Your task to perform on an android device: change notification settings in the gmail app Image 0: 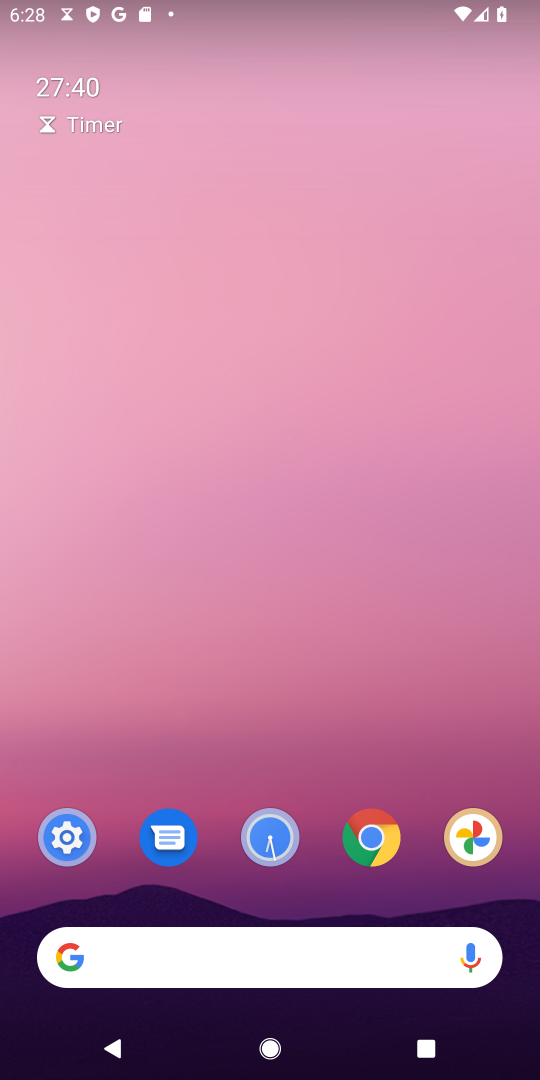
Step 0: press home button
Your task to perform on an android device: change notification settings in the gmail app Image 1: 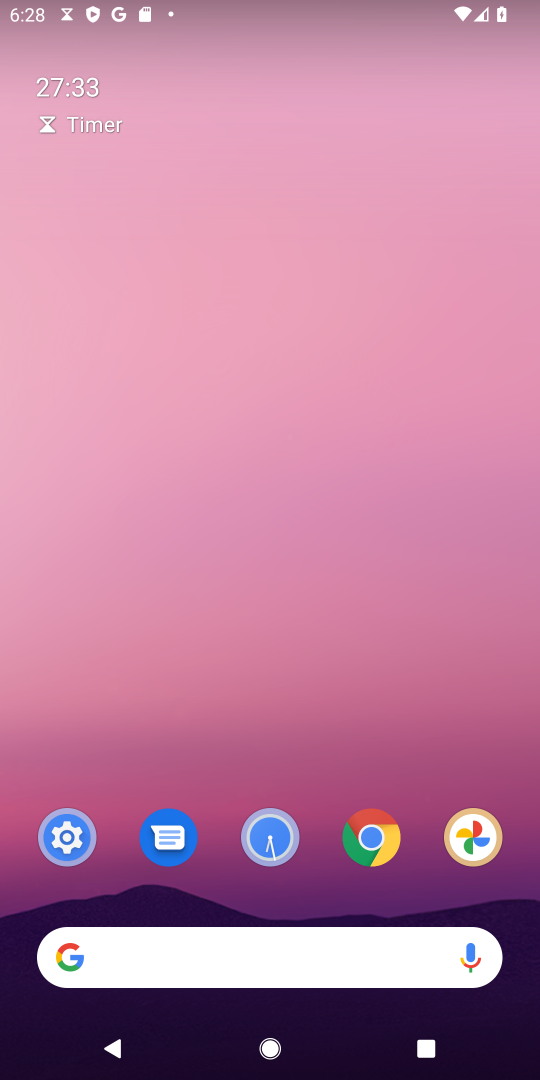
Step 1: drag from (313, 778) to (364, 93)
Your task to perform on an android device: change notification settings in the gmail app Image 2: 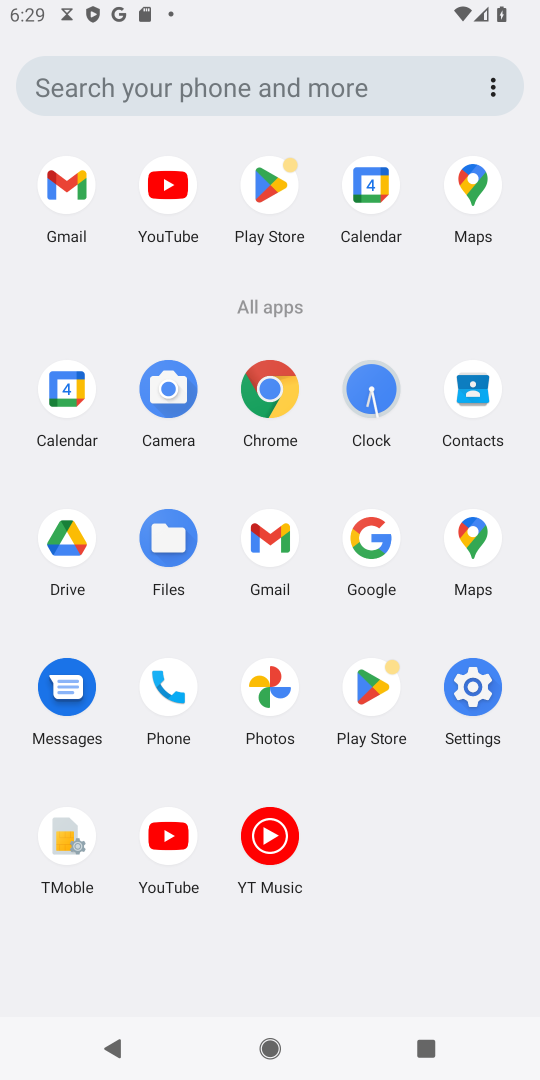
Step 2: click (269, 527)
Your task to perform on an android device: change notification settings in the gmail app Image 3: 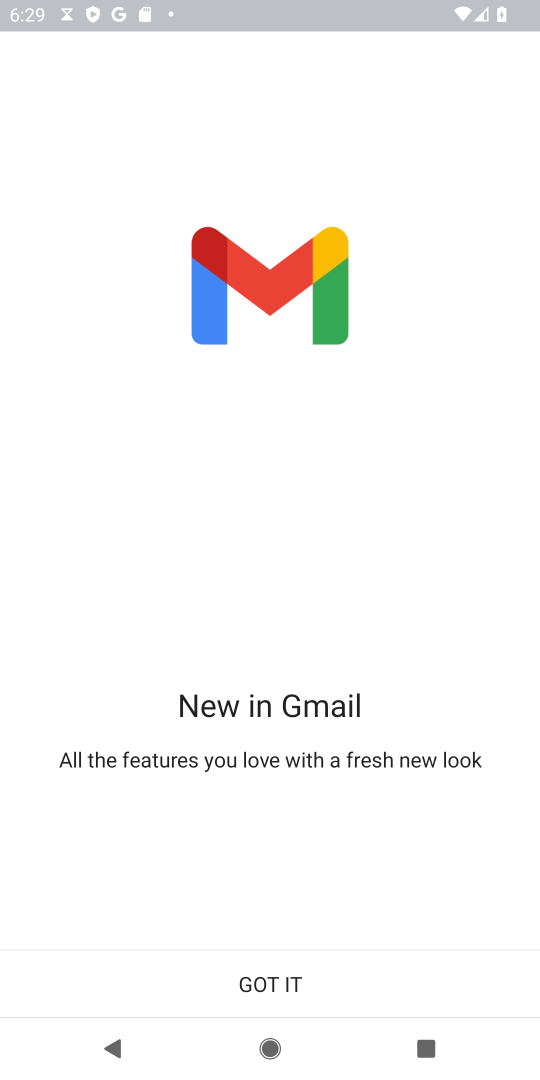
Step 3: click (263, 977)
Your task to perform on an android device: change notification settings in the gmail app Image 4: 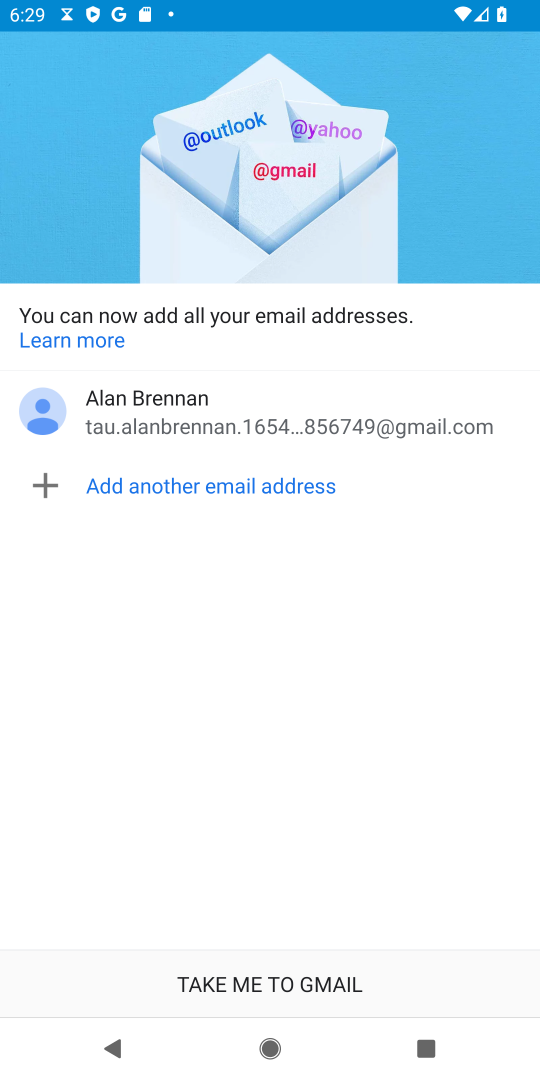
Step 4: click (262, 984)
Your task to perform on an android device: change notification settings in the gmail app Image 5: 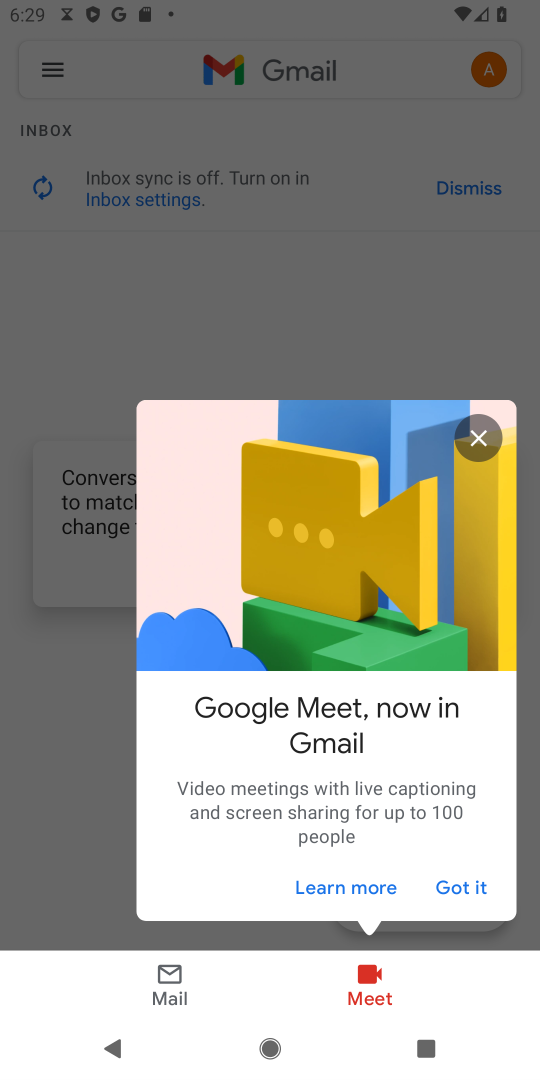
Step 5: click (457, 873)
Your task to perform on an android device: change notification settings in the gmail app Image 6: 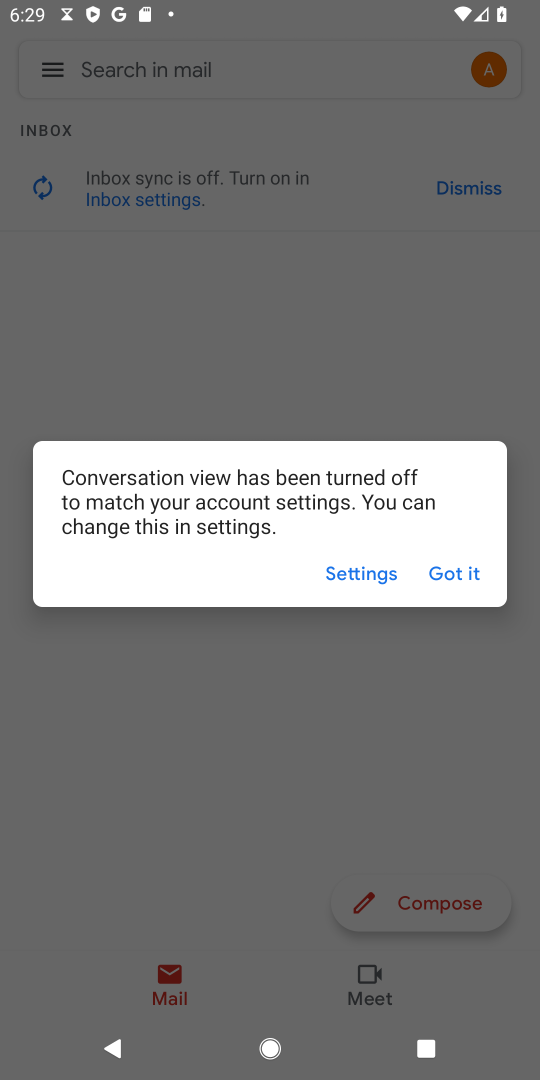
Step 6: click (448, 586)
Your task to perform on an android device: change notification settings in the gmail app Image 7: 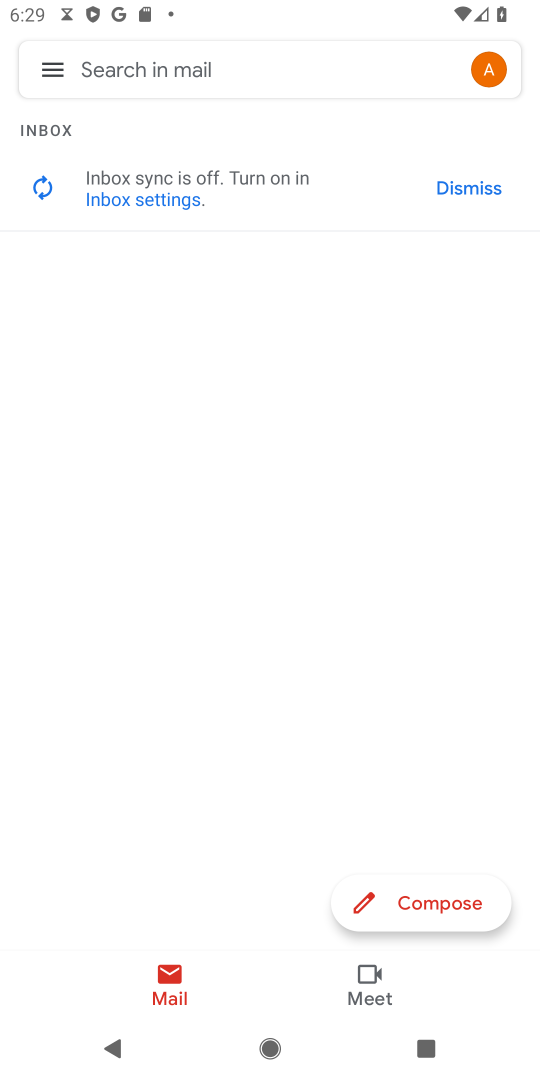
Step 7: click (44, 66)
Your task to perform on an android device: change notification settings in the gmail app Image 8: 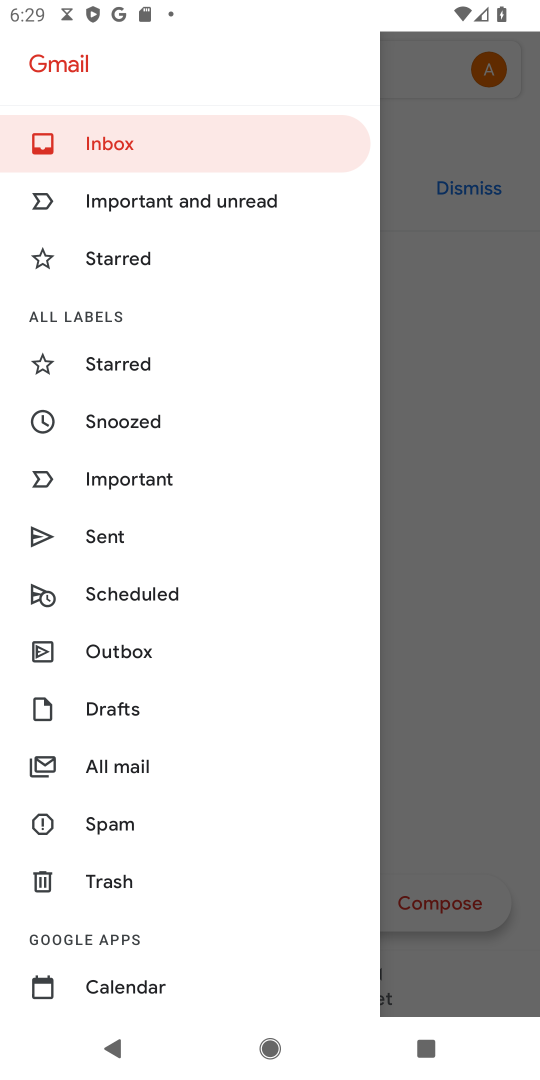
Step 8: drag from (161, 930) to (213, 201)
Your task to perform on an android device: change notification settings in the gmail app Image 9: 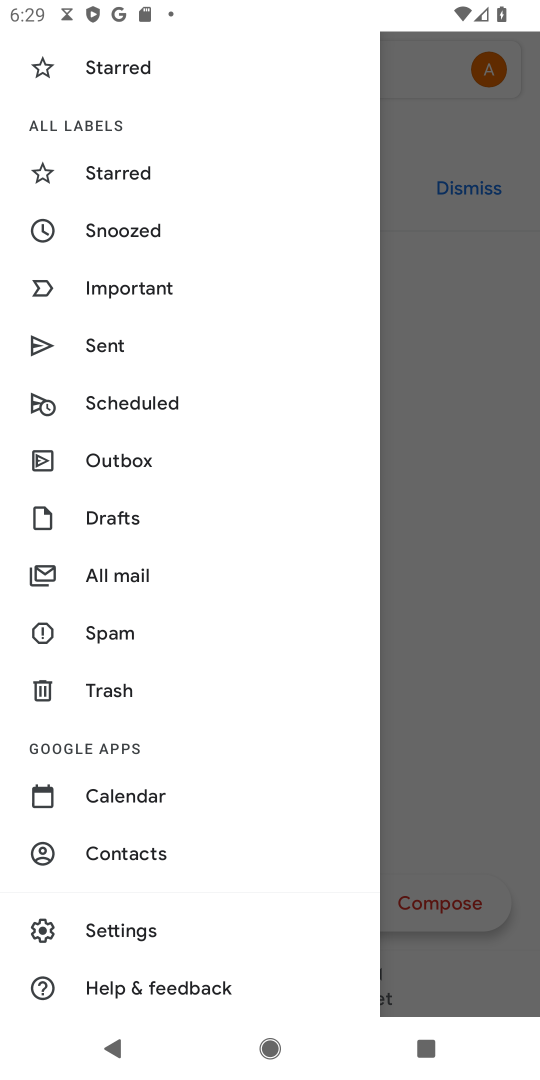
Step 9: click (146, 929)
Your task to perform on an android device: change notification settings in the gmail app Image 10: 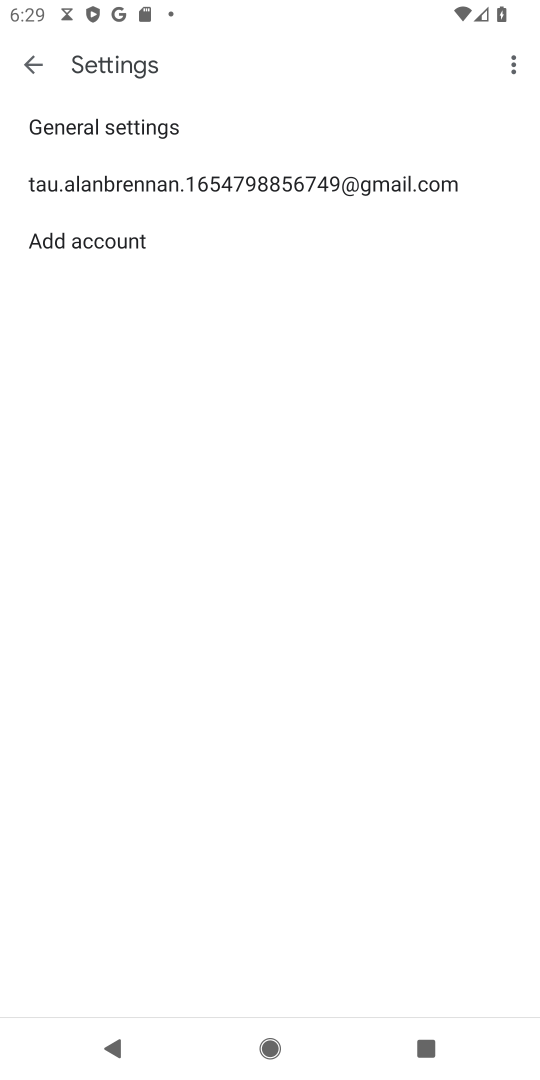
Step 10: click (195, 122)
Your task to perform on an android device: change notification settings in the gmail app Image 11: 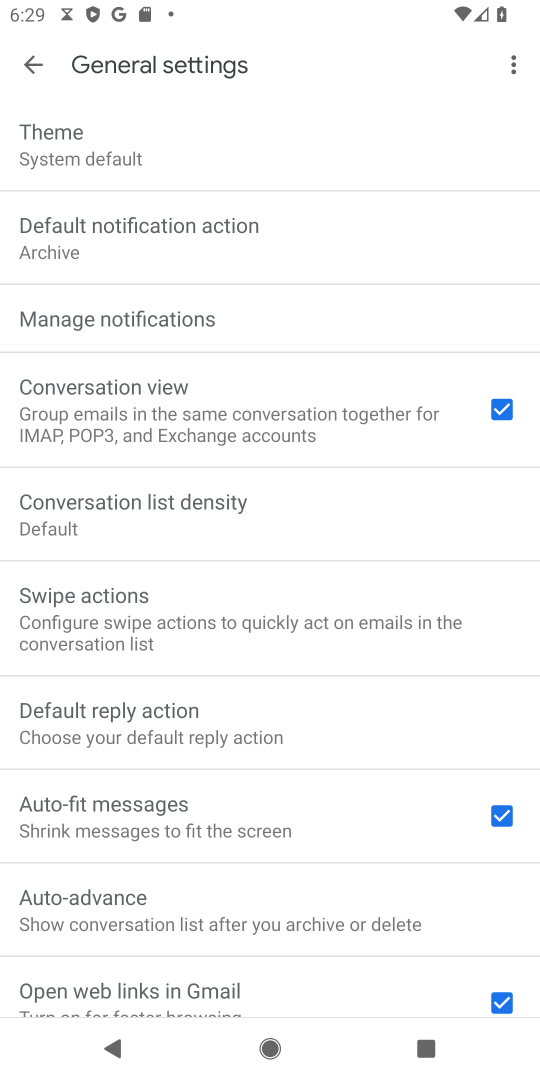
Step 11: click (219, 325)
Your task to perform on an android device: change notification settings in the gmail app Image 12: 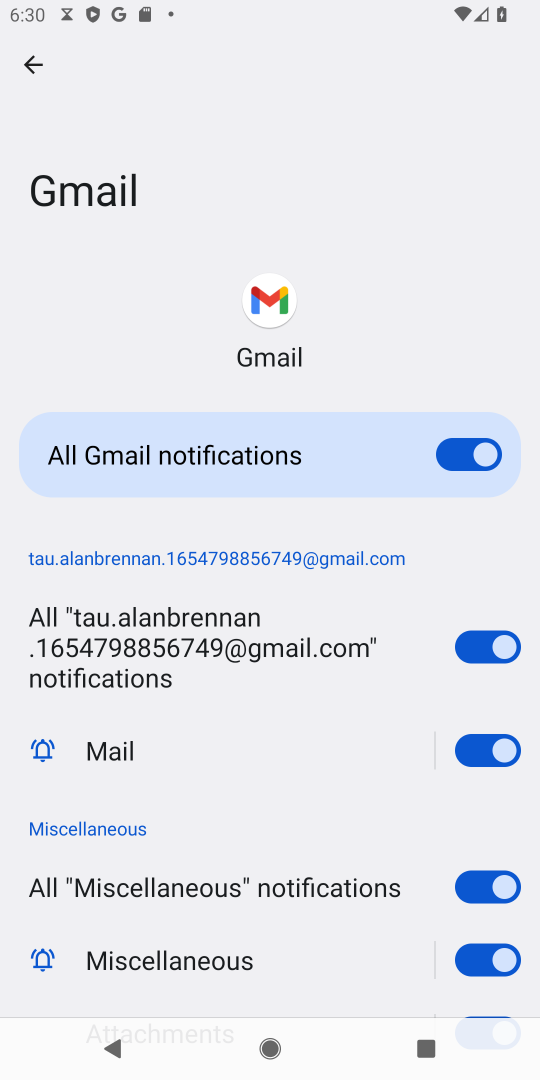
Step 12: click (459, 457)
Your task to perform on an android device: change notification settings in the gmail app Image 13: 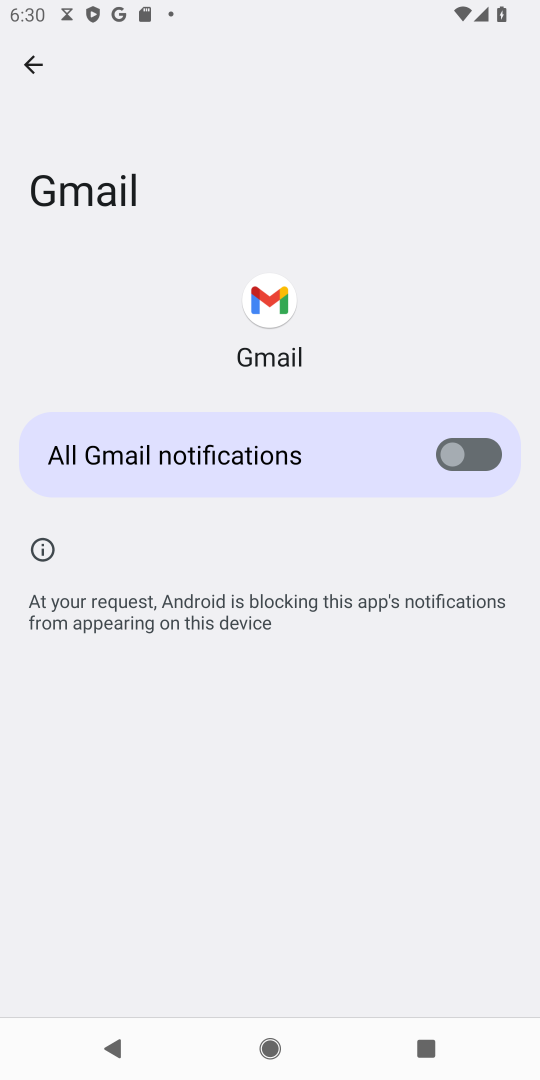
Step 13: task complete